Your task to perform on an android device: open a bookmark in the chrome app Image 0: 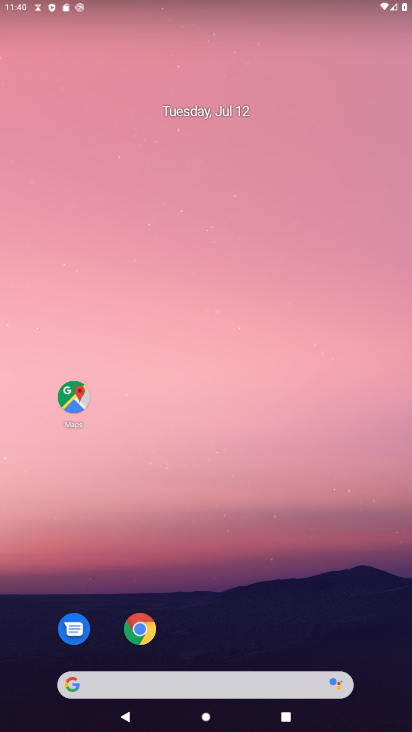
Step 0: drag from (235, 521) to (339, 45)
Your task to perform on an android device: open a bookmark in the chrome app Image 1: 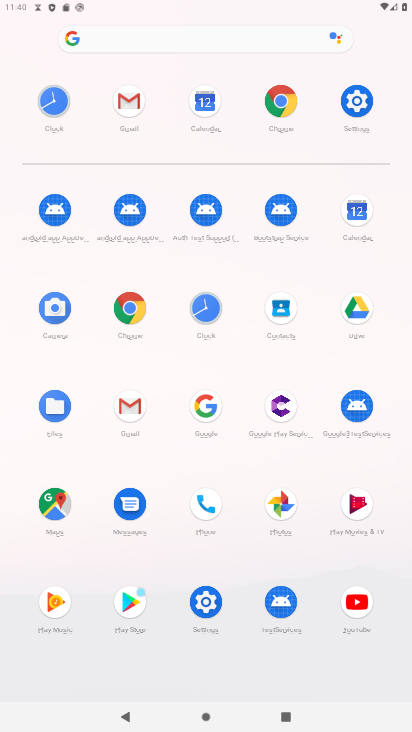
Step 1: click (291, 97)
Your task to perform on an android device: open a bookmark in the chrome app Image 2: 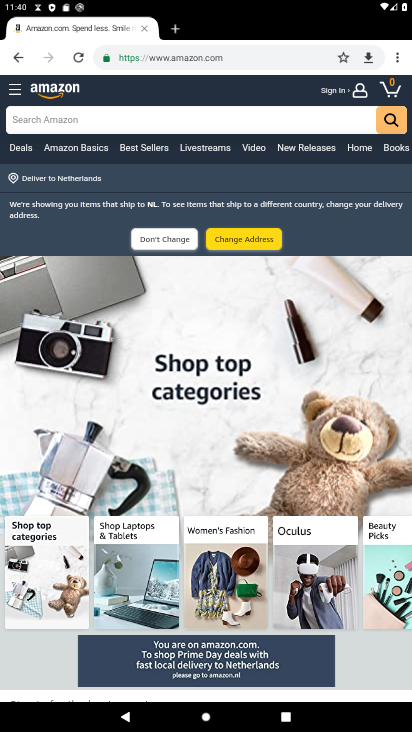
Step 2: drag from (398, 58) to (345, 111)
Your task to perform on an android device: open a bookmark in the chrome app Image 3: 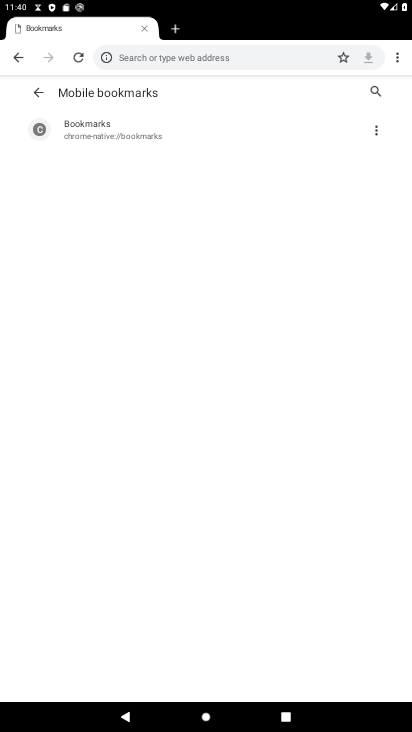
Step 3: press home button
Your task to perform on an android device: open a bookmark in the chrome app Image 4: 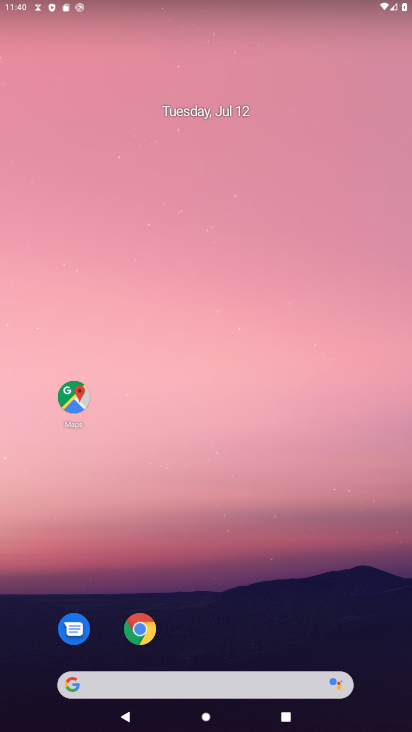
Step 4: drag from (407, 496) to (129, 14)
Your task to perform on an android device: open a bookmark in the chrome app Image 5: 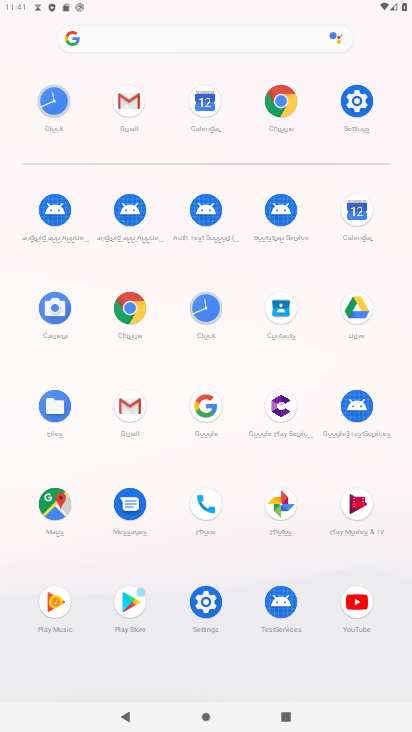
Step 5: click (390, 219)
Your task to perform on an android device: open a bookmark in the chrome app Image 6: 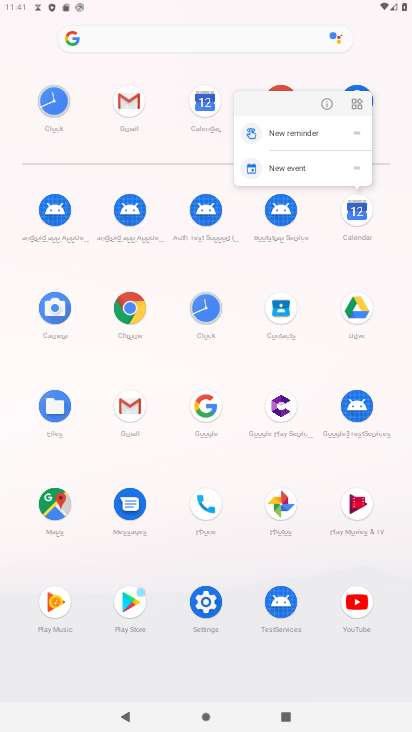
Step 6: click (402, 135)
Your task to perform on an android device: open a bookmark in the chrome app Image 7: 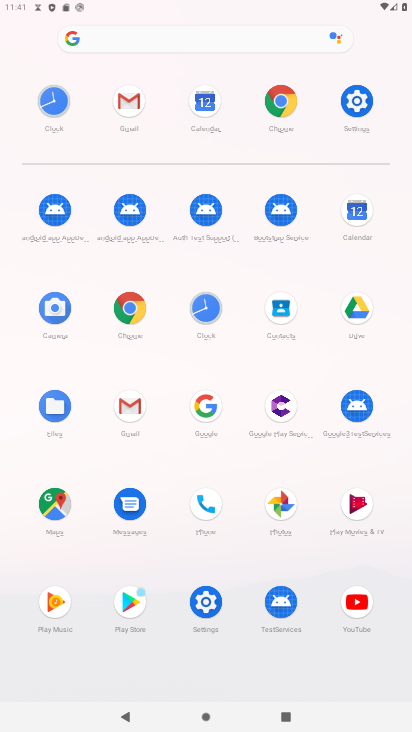
Step 7: click (287, 105)
Your task to perform on an android device: open a bookmark in the chrome app Image 8: 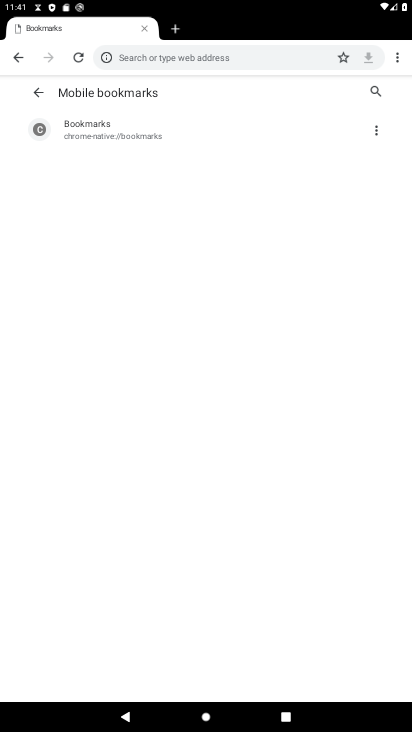
Step 8: task complete